Your task to perform on an android device: delete location history Image 0: 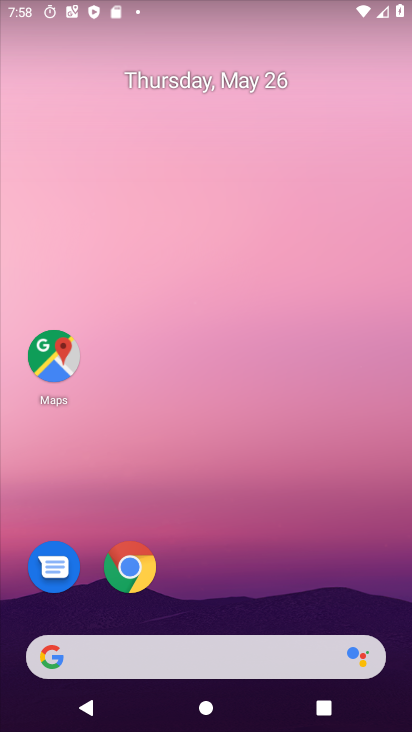
Step 0: press home button
Your task to perform on an android device: delete location history Image 1: 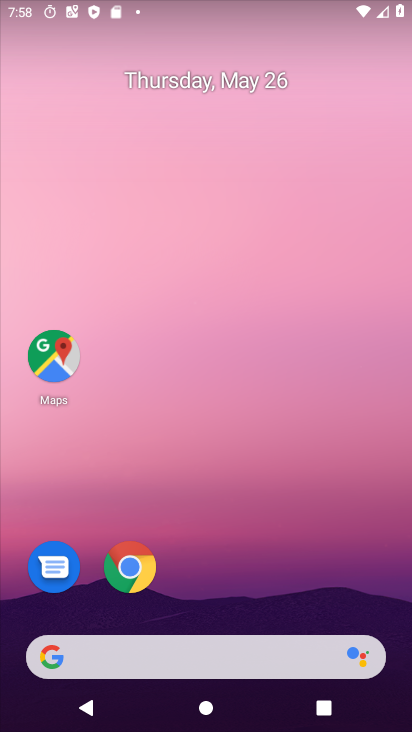
Step 1: click (41, 356)
Your task to perform on an android device: delete location history Image 2: 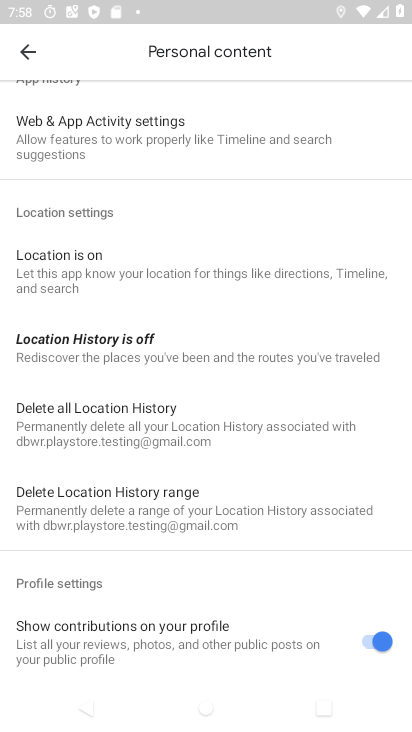
Step 2: click (145, 415)
Your task to perform on an android device: delete location history Image 3: 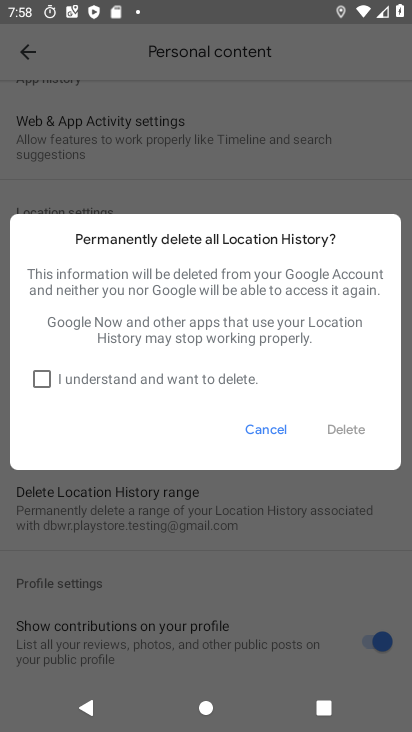
Step 3: click (43, 375)
Your task to perform on an android device: delete location history Image 4: 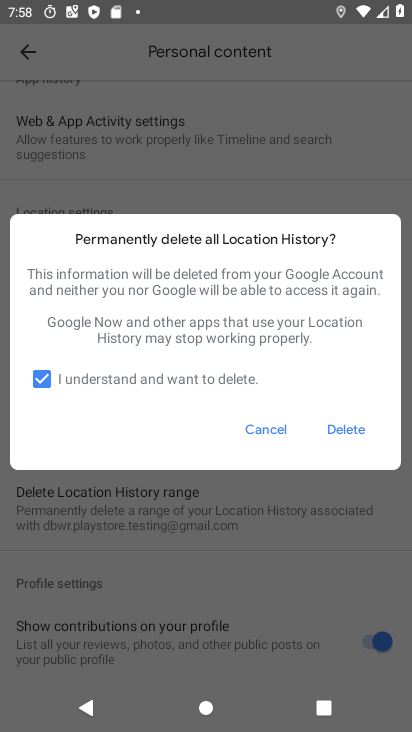
Step 4: click (362, 429)
Your task to perform on an android device: delete location history Image 5: 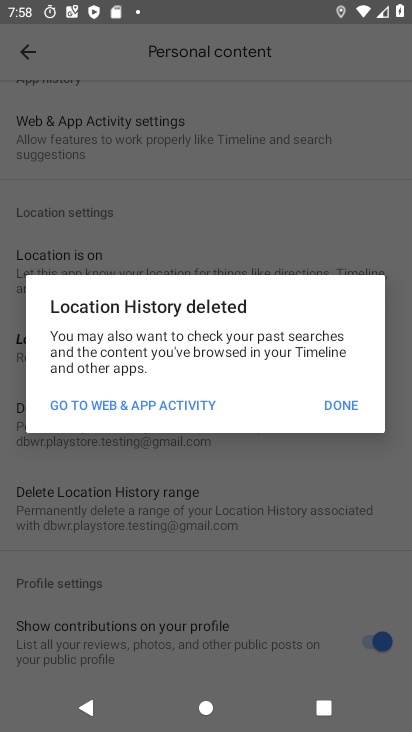
Step 5: click (348, 401)
Your task to perform on an android device: delete location history Image 6: 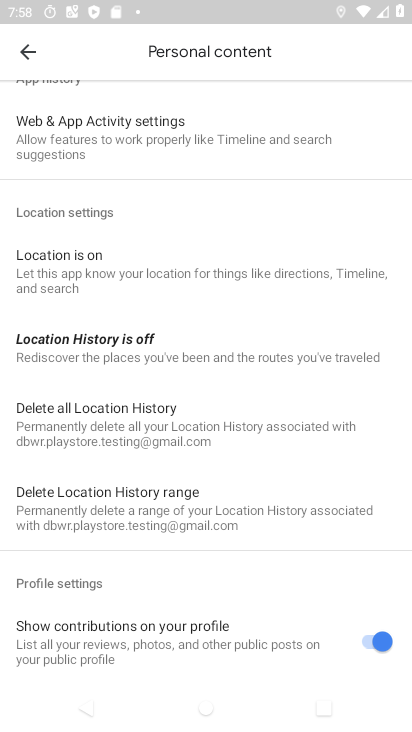
Step 6: task complete